Your task to perform on an android device: see tabs open on other devices in the chrome app Image 0: 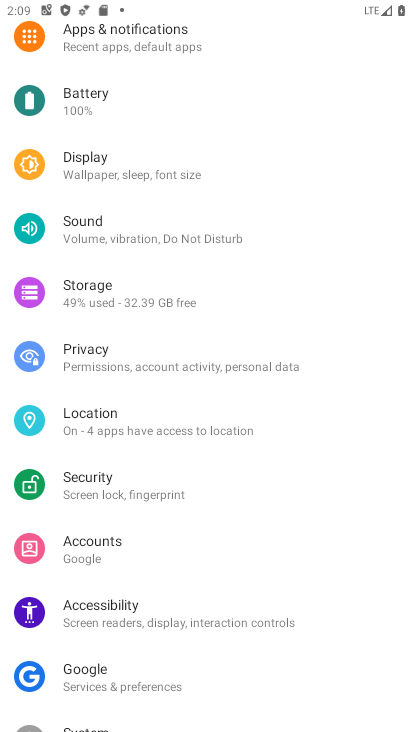
Step 0: press home button
Your task to perform on an android device: see tabs open on other devices in the chrome app Image 1: 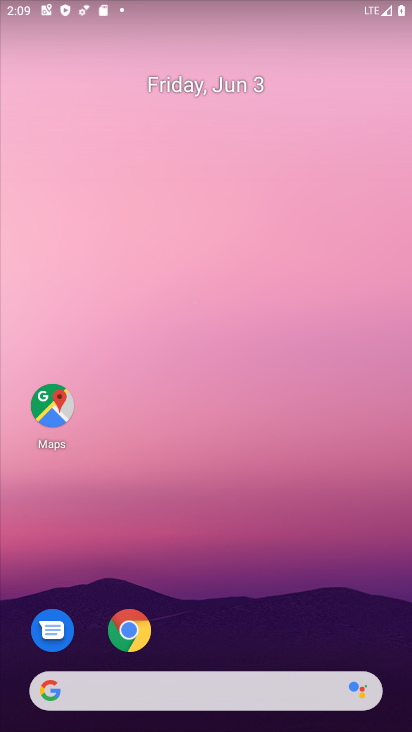
Step 1: click (131, 631)
Your task to perform on an android device: see tabs open on other devices in the chrome app Image 2: 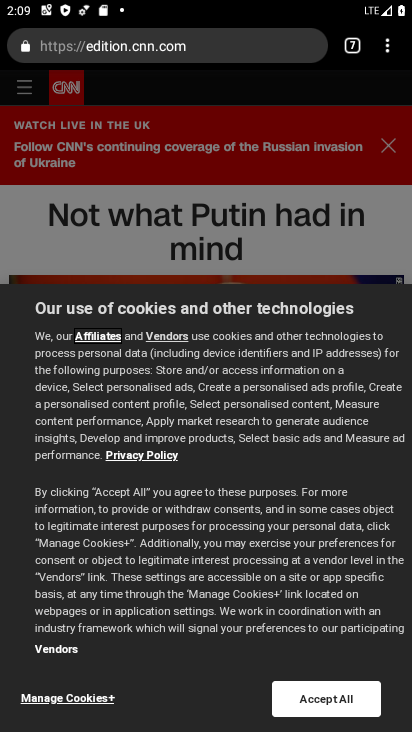
Step 2: click (388, 54)
Your task to perform on an android device: see tabs open on other devices in the chrome app Image 3: 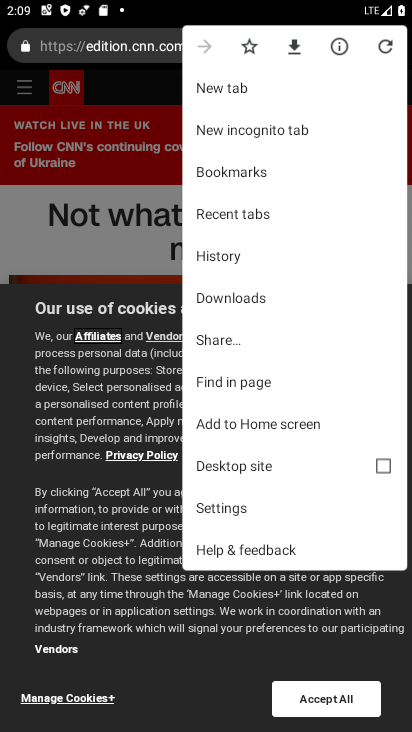
Step 3: click (228, 211)
Your task to perform on an android device: see tabs open on other devices in the chrome app Image 4: 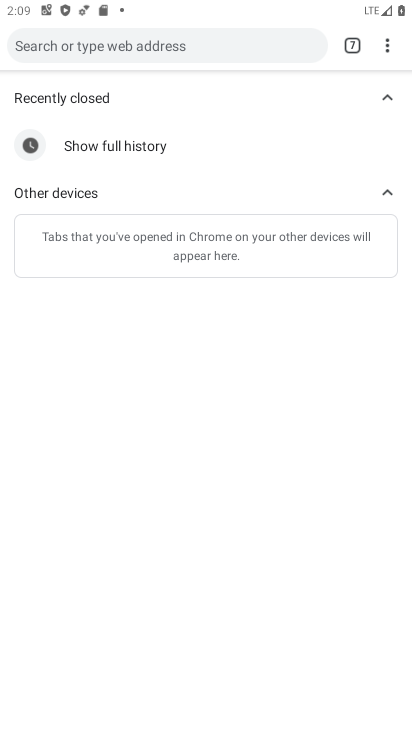
Step 4: task complete